Your task to perform on an android device: allow cookies in the chrome app Image 0: 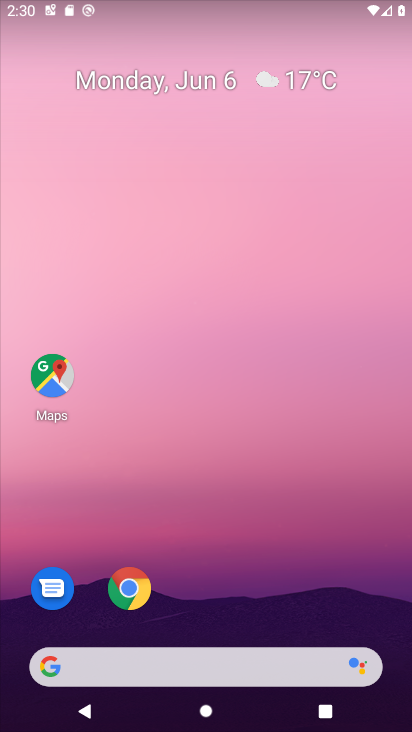
Step 0: click (132, 580)
Your task to perform on an android device: allow cookies in the chrome app Image 1: 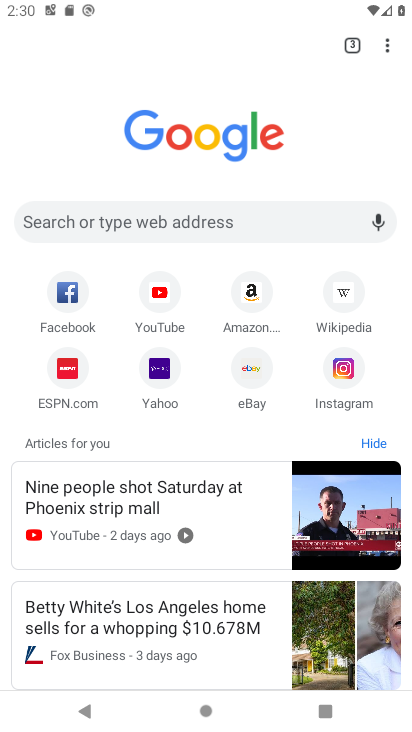
Step 1: click (381, 48)
Your task to perform on an android device: allow cookies in the chrome app Image 2: 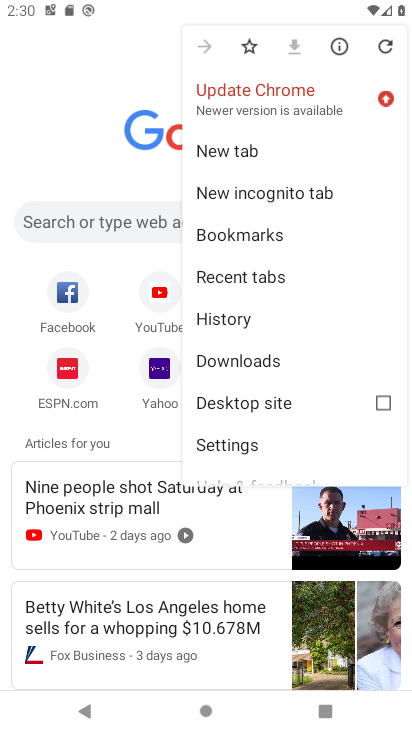
Step 2: click (239, 439)
Your task to perform on an android device: allow cookies in the chrome app Image 3: 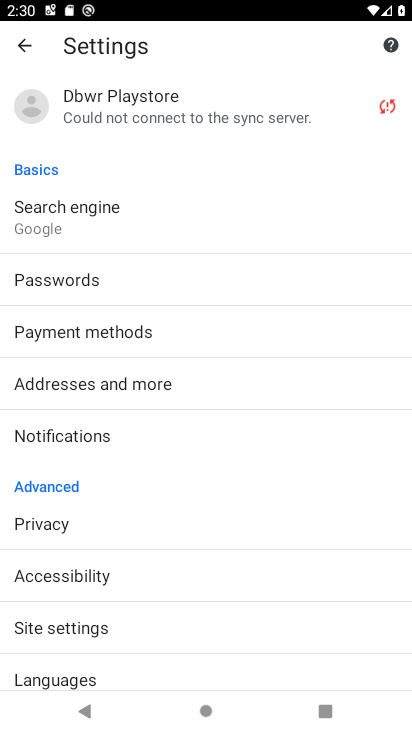
Step 3: click (81, 628)
Your task to perform on an android device: allow cookies in the chrome app Image 4: 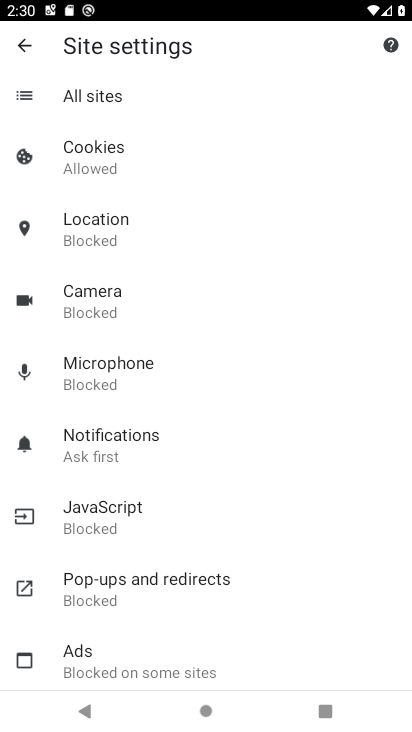
Step 4: click (160, 150)
Your task to perform on an android device: allow cookies in the chrome app Image 5: 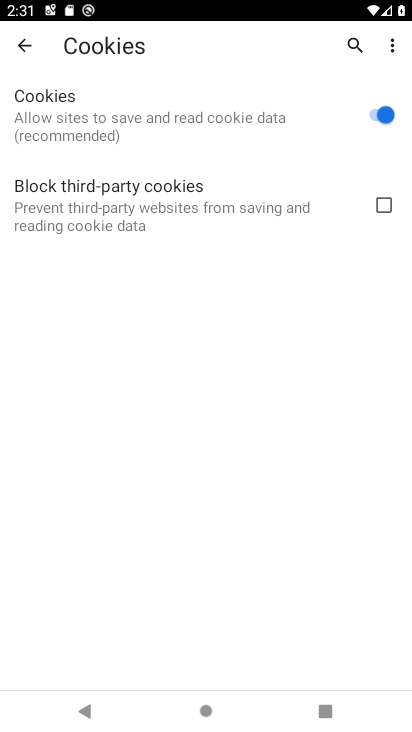
Step 5: task complete